Your task to perform on an android device: Open Google Maps Image 0: 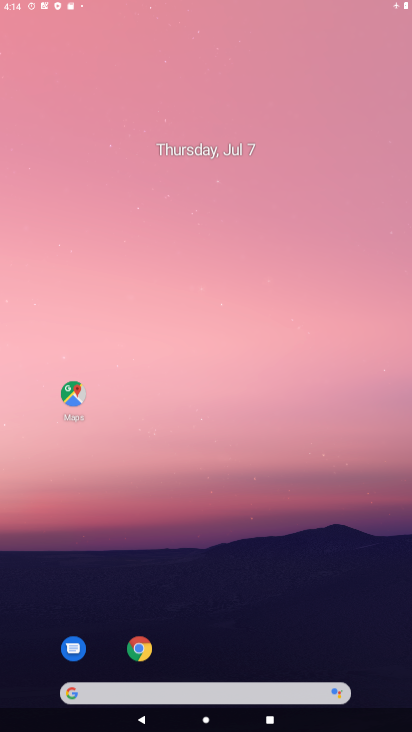
Step 0: drag from (361, 642) to (250, 137)
Your task to perform on an android device: Open Google Maps Image 1: 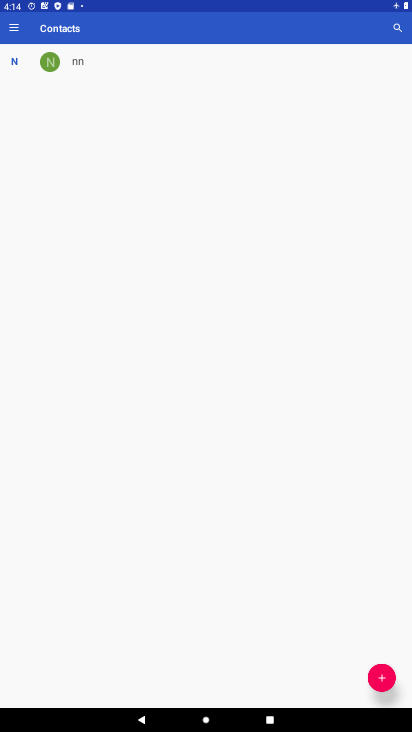
Step 1: press home button
Your task to perform on an android device: Open Google Maps Image 2: 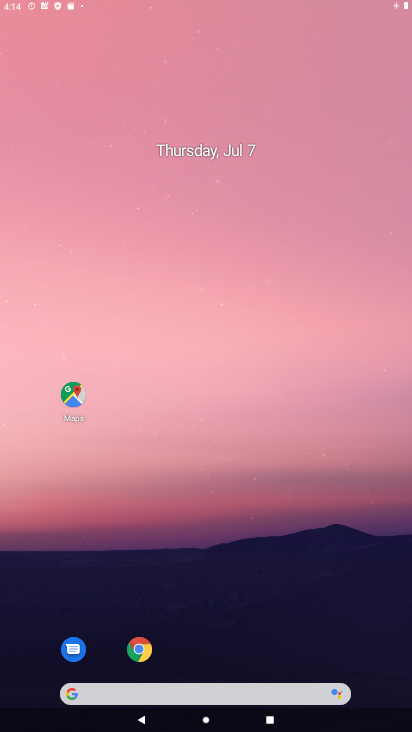
Step 2: drag from (397, 649) to (283, 31)
Your task to perform on an android device: Open Google Maps Image 3: 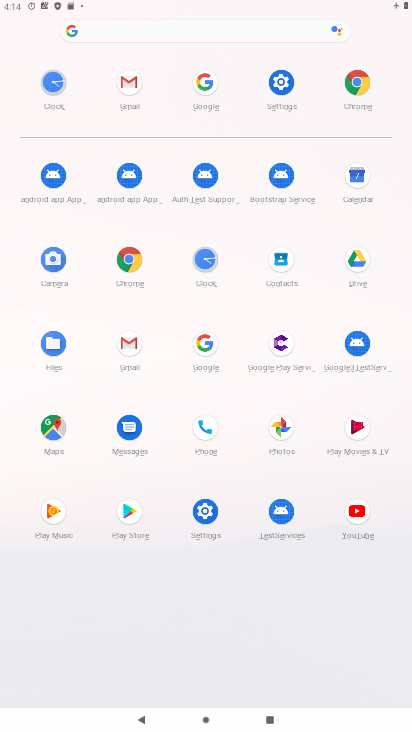
Step 3: click (40, 431)
Your task to perform on an android device: Open Google Maps Image 4: 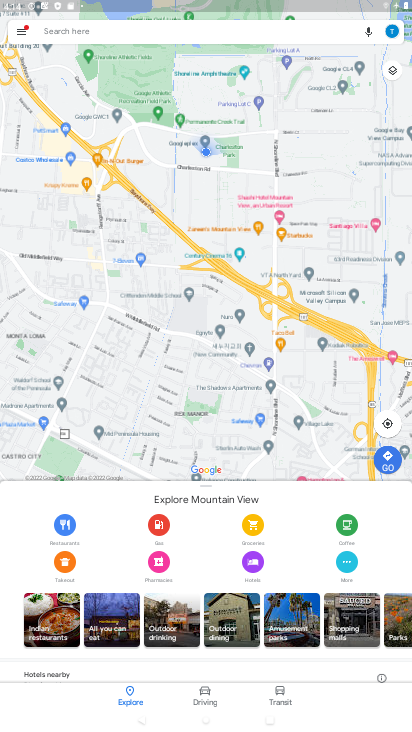
Step 4: task complete